Your task to perform on an android device: Open the map Image 0: 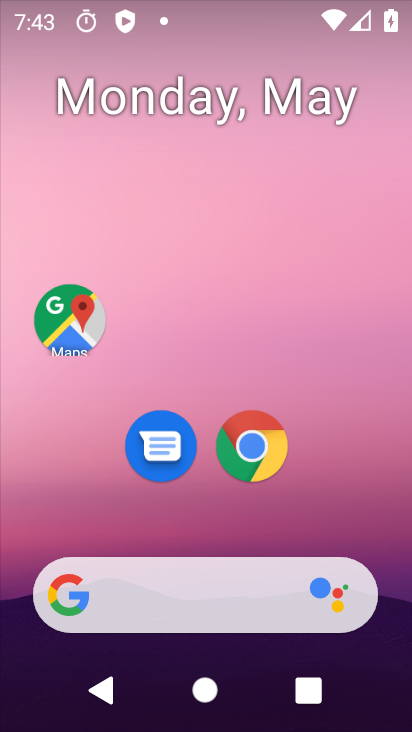
Step 0: click (72, 334)
Your task to perform on an android device: Open the map Image 1: 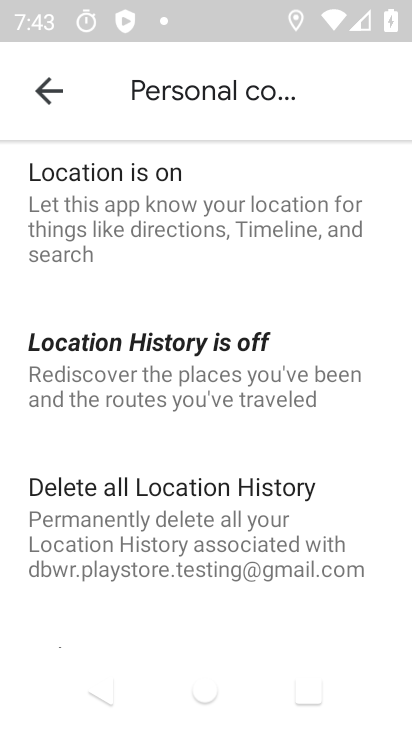
Step 1: task complete